Your task to perform on an android device: Search for Italian restaurants on Maps Image 0: 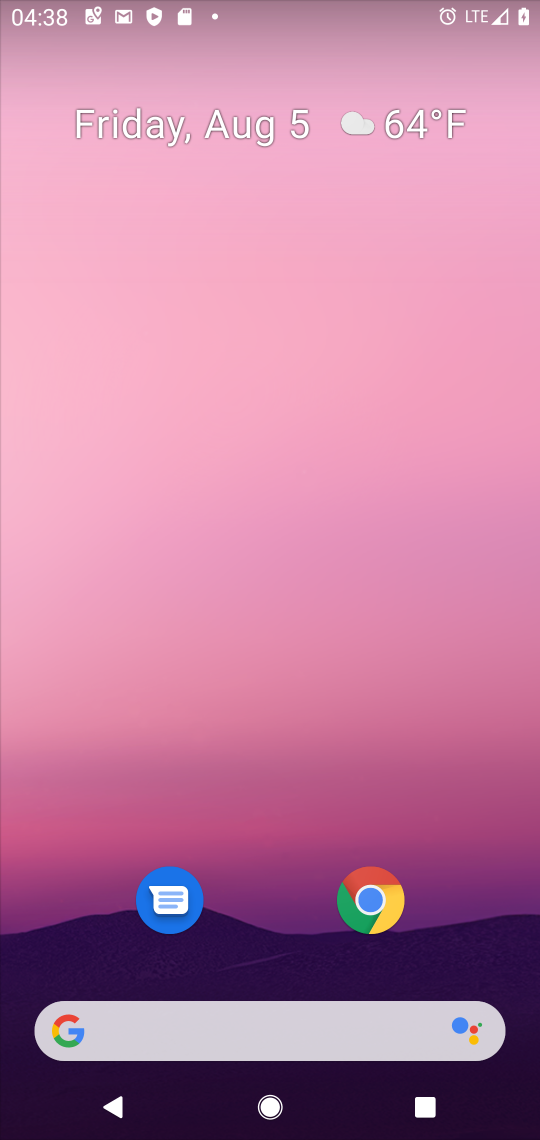
Step 0: drag from (280, 972) to (333, 60)
Your task to perform on an android device: Search for Italian restaurants on Maps Image 1: 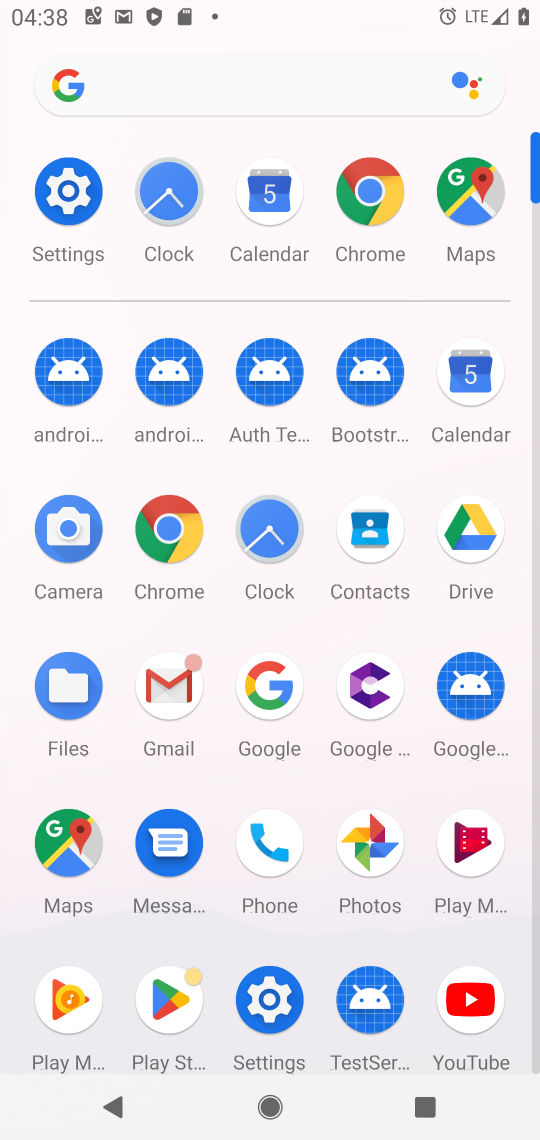
Step 1: click (475, 180)
Your task to perform on an android device: Search for Italian restaurants on Maps Image 2: 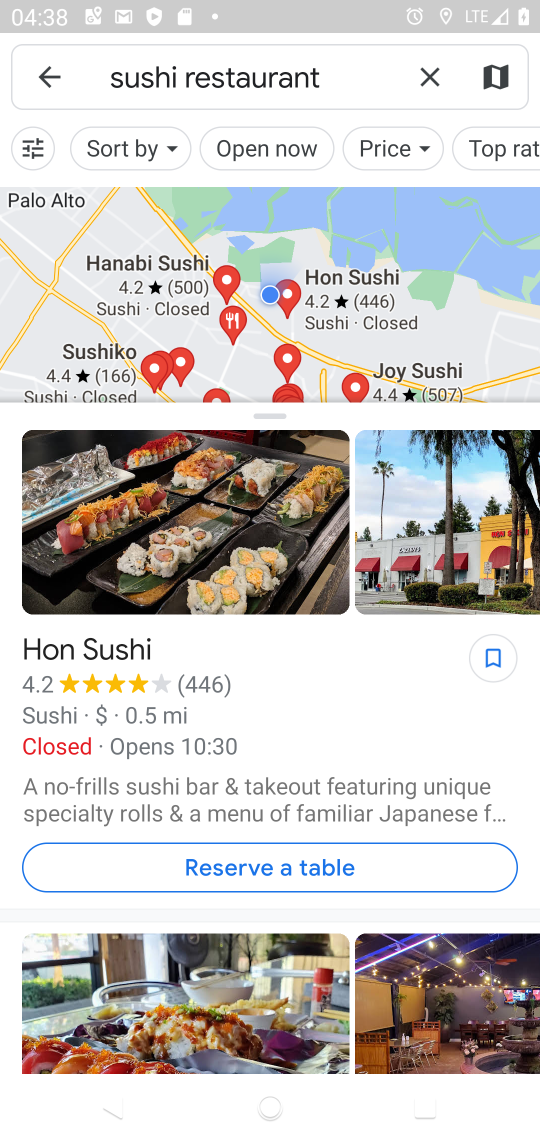
Step 2: click (426, 89)
Your task to perform on an android device: Search for Italian restaurants on Maps Image 3: 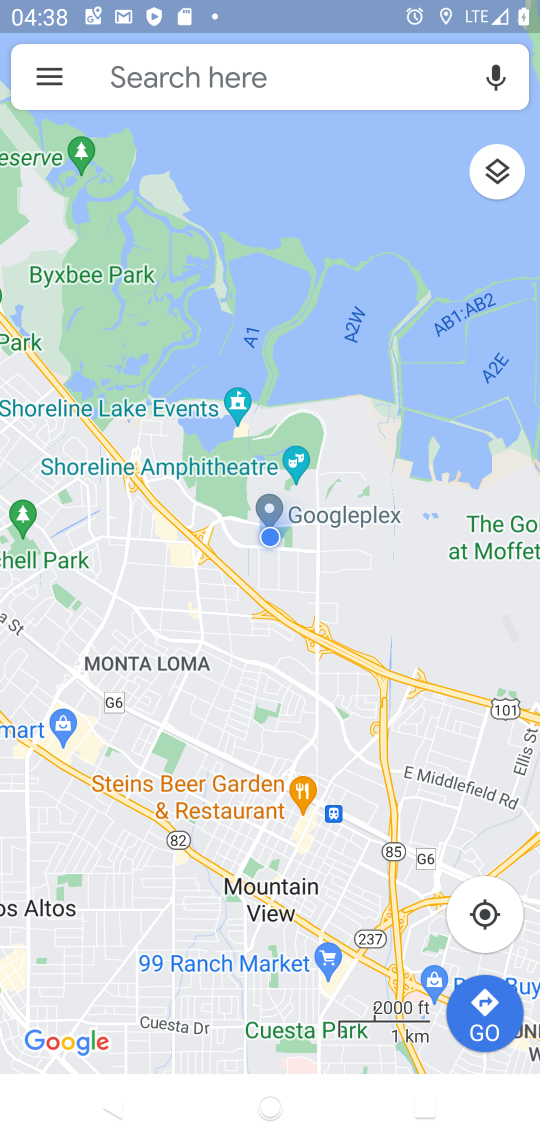
Step 3: click (251, 77)
Your task to perform on an android device: Search for Italian restaurants on Maps Image 4: 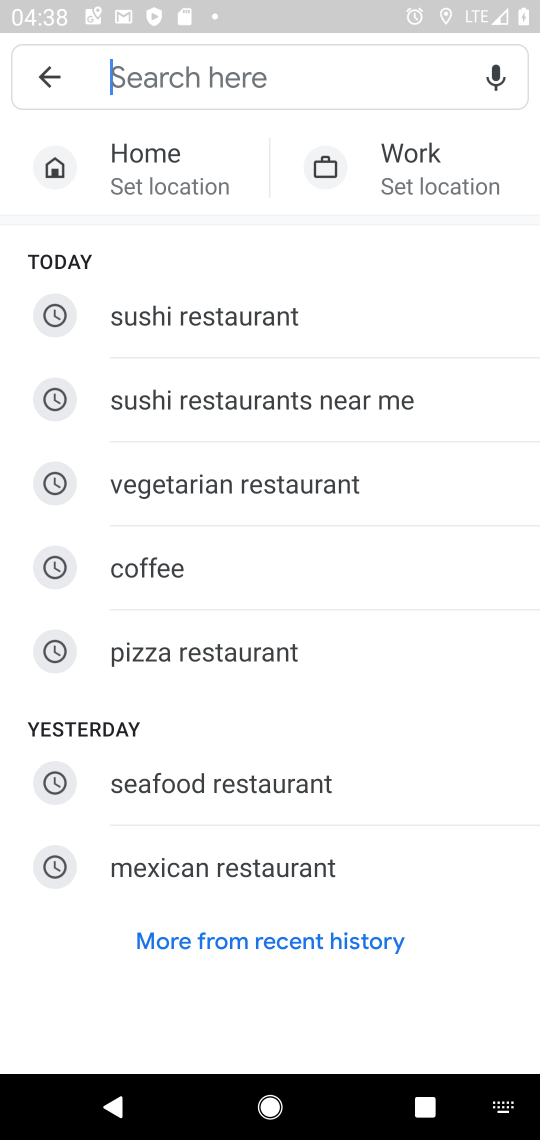
Step 4: click (184, 67)
Your task to perform on an android device: Search for Italian restaurants on Maps Image 5: 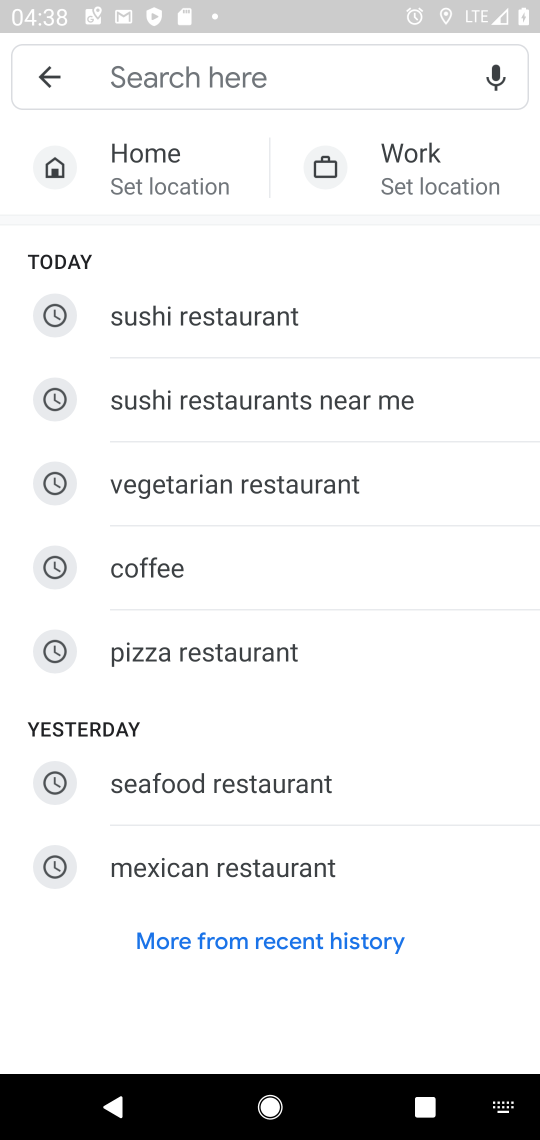
Step 5: type "italian"
Your task to perform on an android device: Search for Italian restaurants on Maps Image 6: 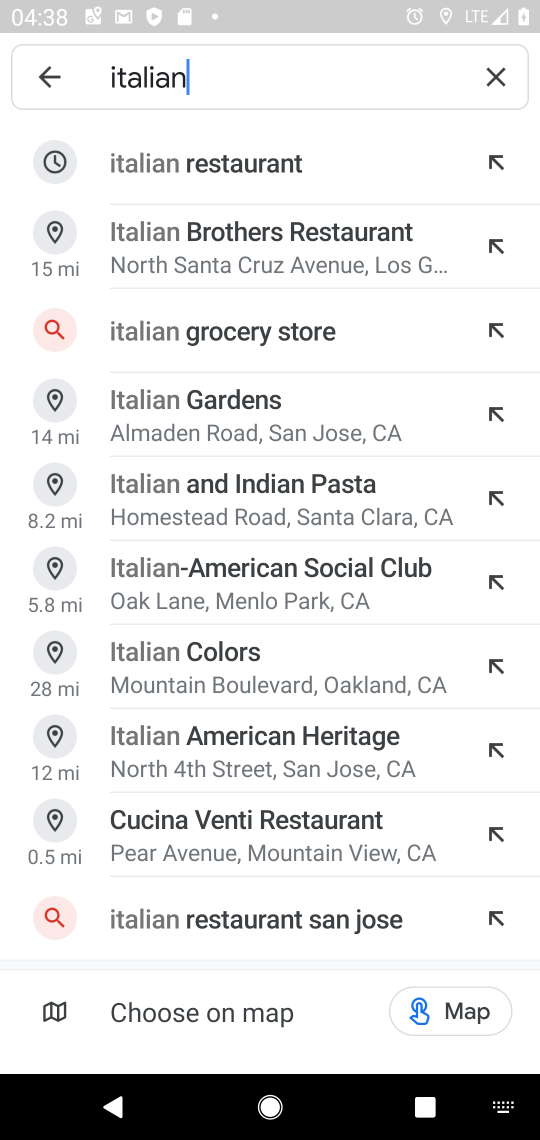
Step 6: click (246, 169)
Your task to perform on an android device: Search for Italian restaurants on Maps Image 7: 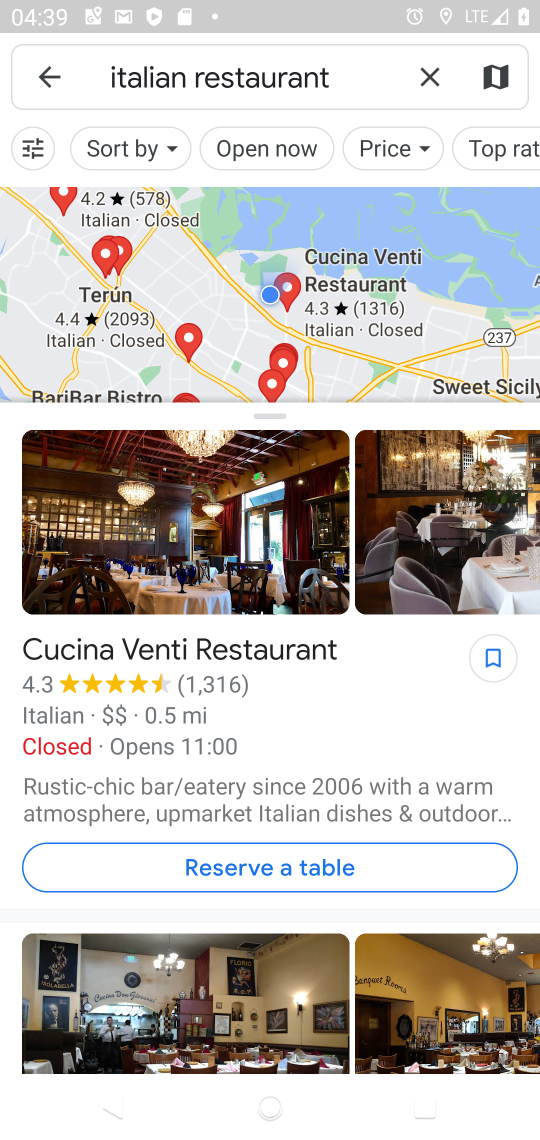
Step 7: task complete